Your task to perform on an android device: turn on location history Image 0: 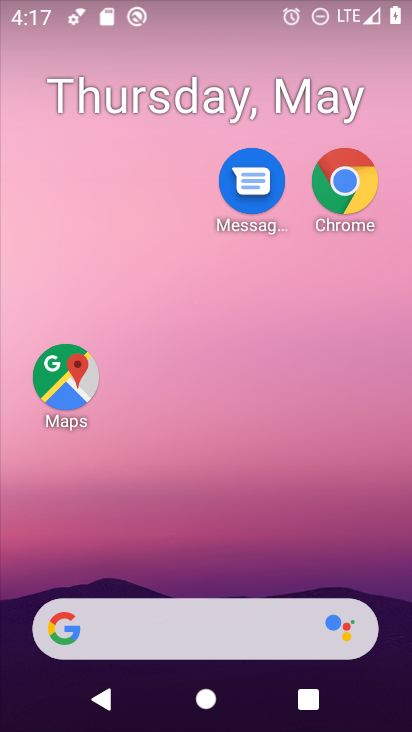
Step 0: drag from (274, 592) to (384, 1)
Your task to perform on an android device: turn on location history Image 1: 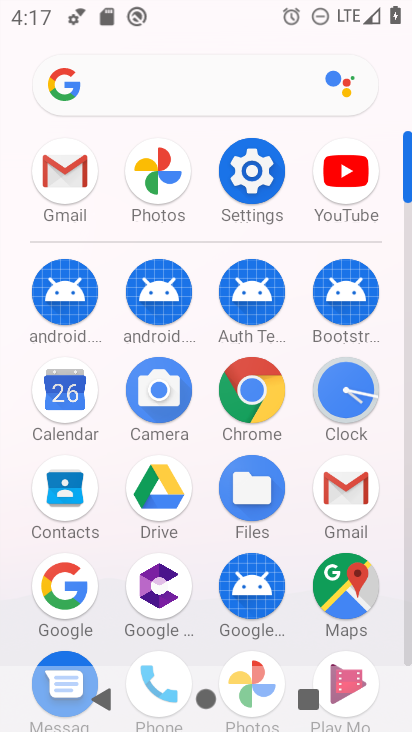
Step 1: click (257, 161)
Your task to perform on an android device: turn on location history Image 2: 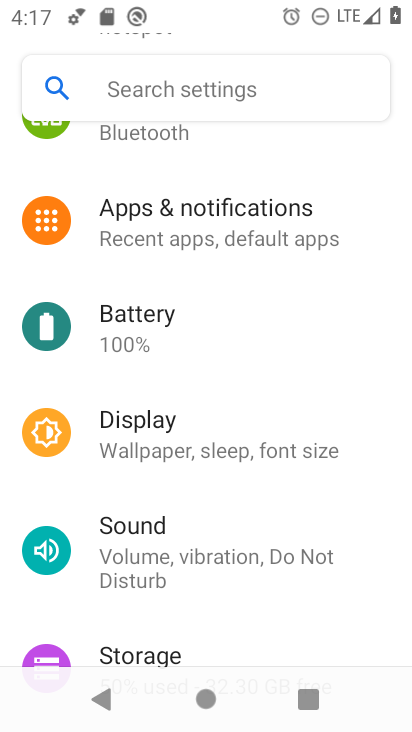
Step 2: drag from (238, 634) to (281, 278)
Your task to perform on an android device: turn on location history Image 3: 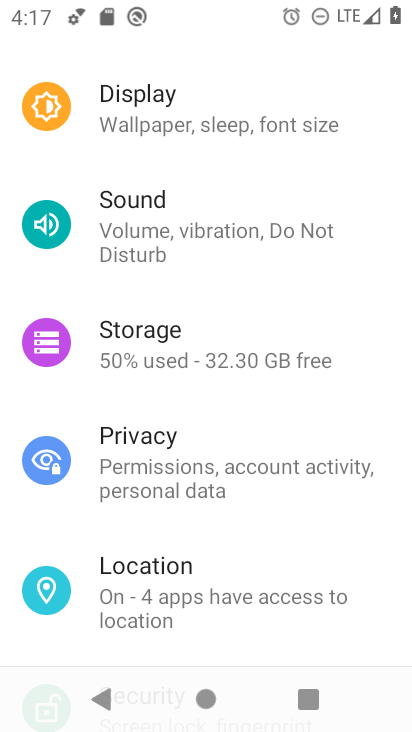
Step 3: click (223, 592)
Your task to perform on an android device: turn on location history Image 4: 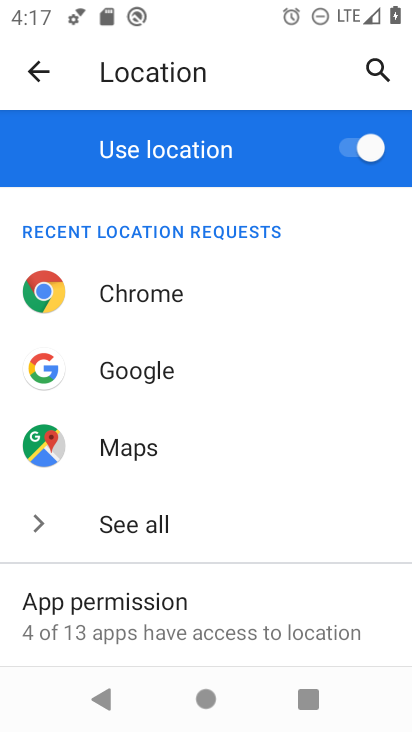
Step 4: drag from (285, 562) to (302, 13)
Your task to perform on an android device: turn on location history Image 5: 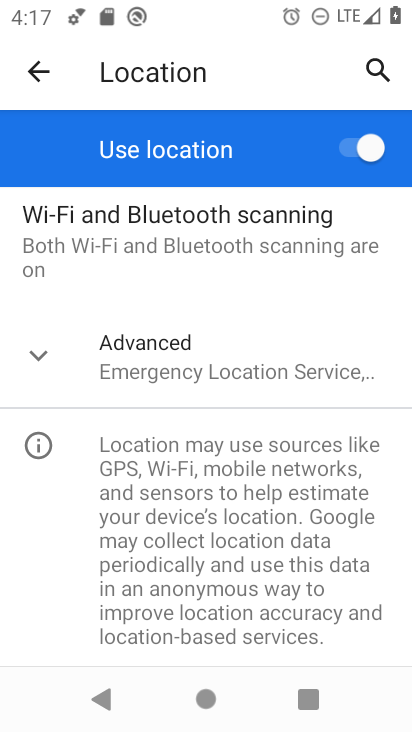
Step 5: click (240, 372)
Your task to perform on an android device: turn on location history Image 6: 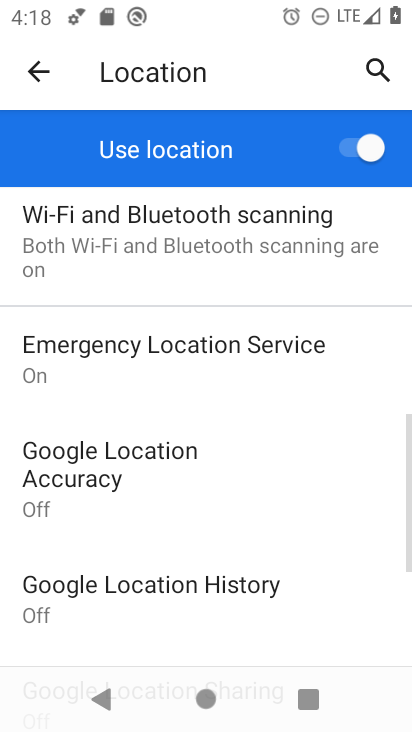
Step 6: click (187, 592)
Your task to perform on an android device: turn on location history Image 7: 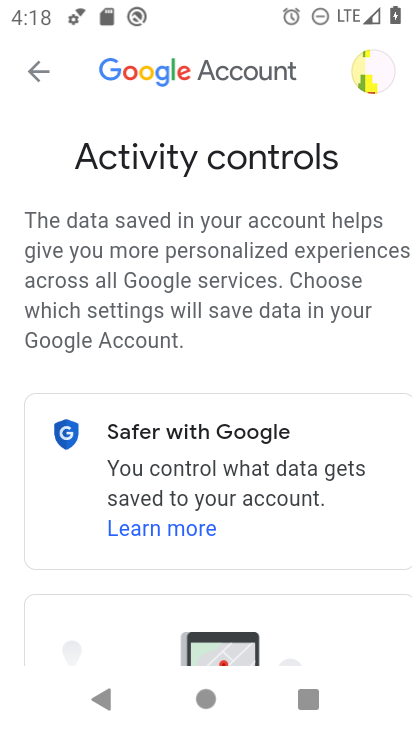
Step 7: task complete